Your task to perform on an android device: clear all cookies in the chrome app Image 0: 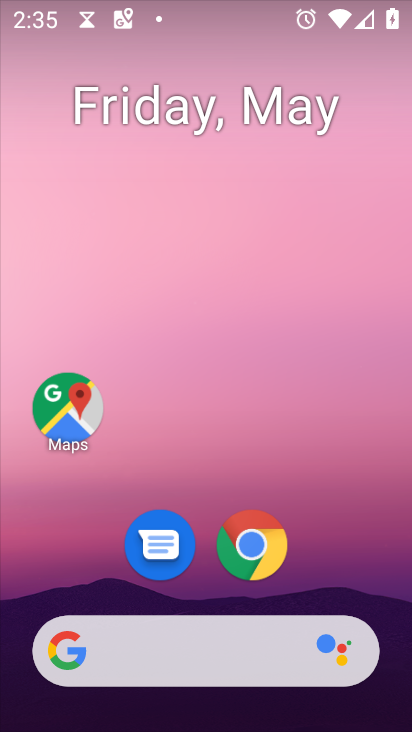
Step 0: click (262, 550)
Your task to perform on an android device: clear all cookies in the chrome app Image 1: 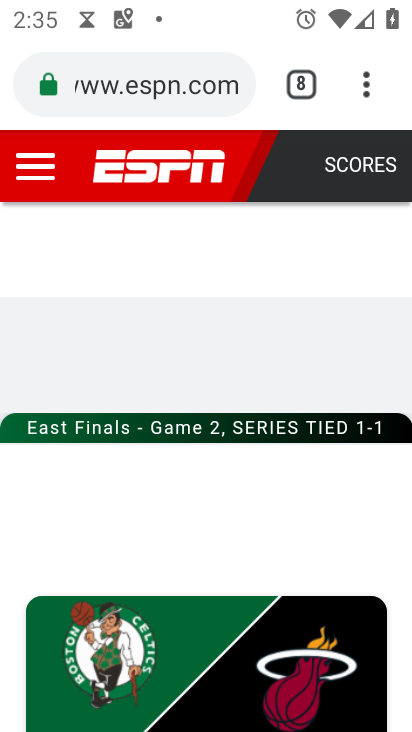
Step 1: click (371, 91)
Your task to perform on an android device: clear all cookies in the chrome app Image 2: 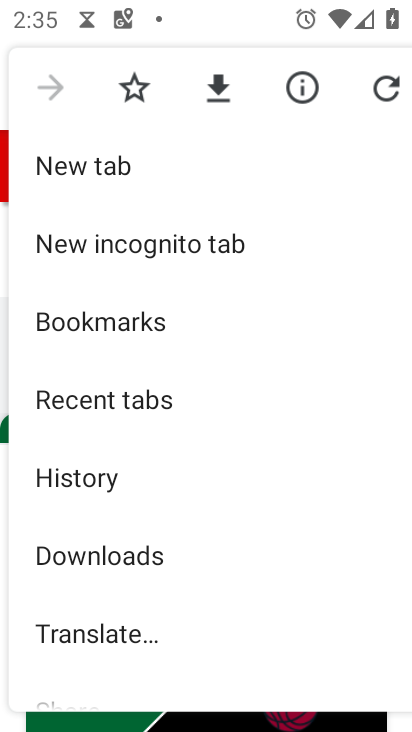
Step 2: click (107, 474)
Your task to perform on an android device: clear all cookies in the chrome app Image 3: 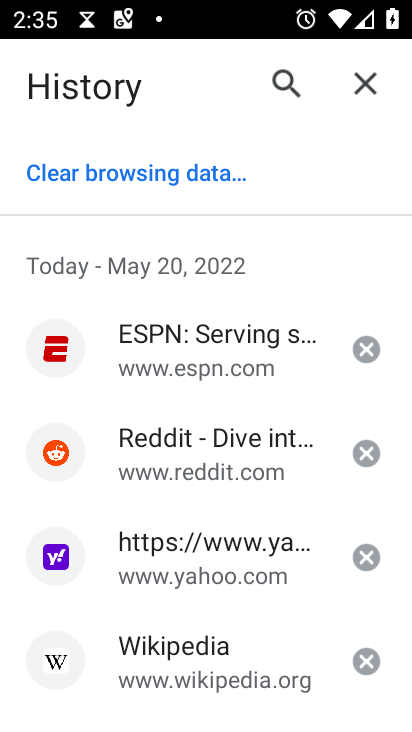
Step 3: click (160, 173)
Your task to perform on an android device: clear all cookies in the chrome app Image 4: 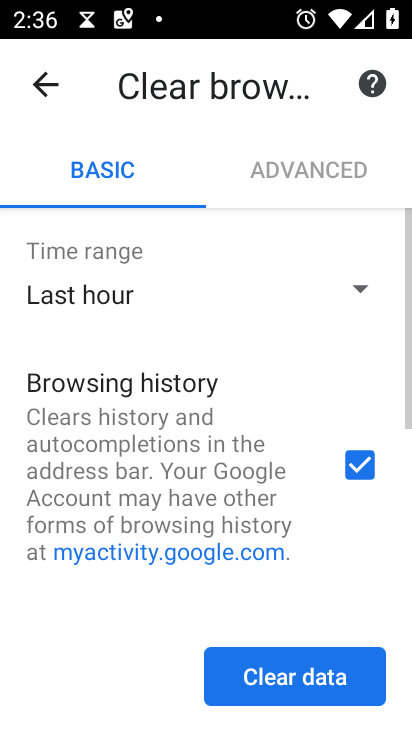
Step 4: click (362, 284)
Your task to perform on an android device: clear all cookies in the chrome app Image 5: 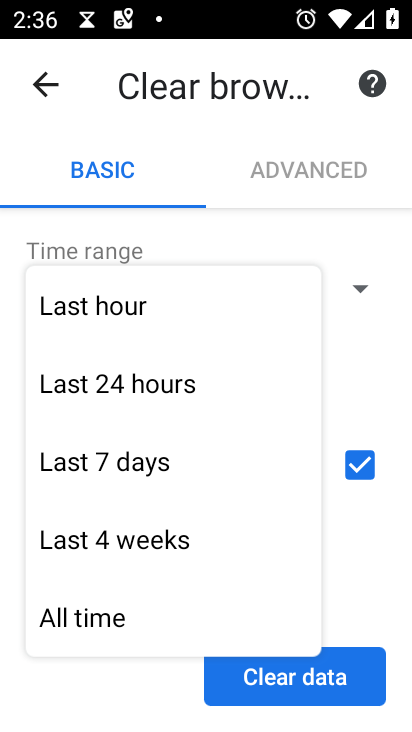
Step 5: click (101, 615)
Your task to perform on an android device: clear all cookies in the chrome app Image 6: 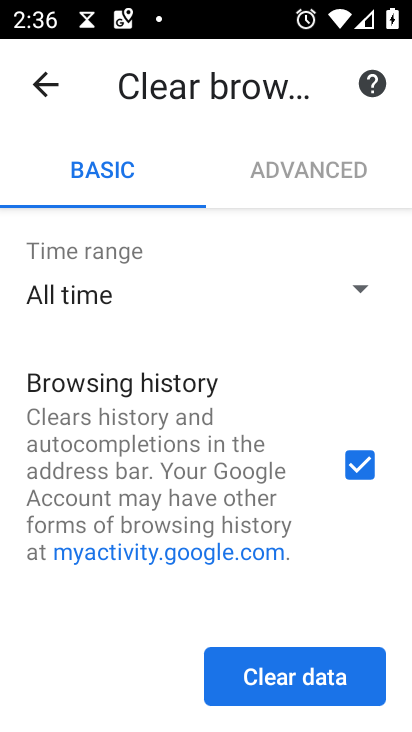
Step 6: click (285, 671)
Your task to perform on an android device: clear all cookies in the chrome app Image 7: 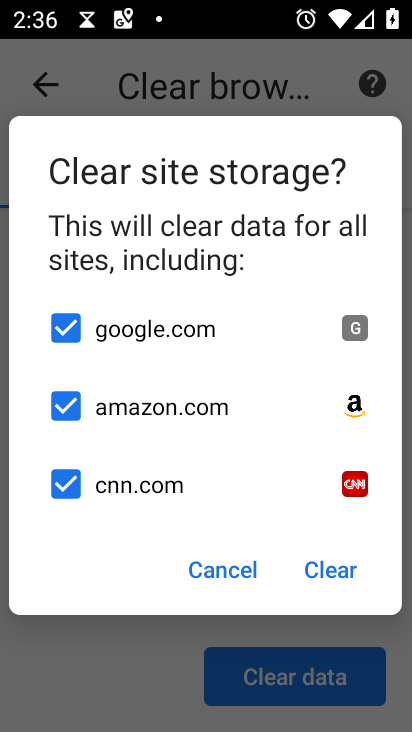
Step 7: click (336, 569)
Your task to perform on an android device: clear all cookies in the chrome app Image 8: 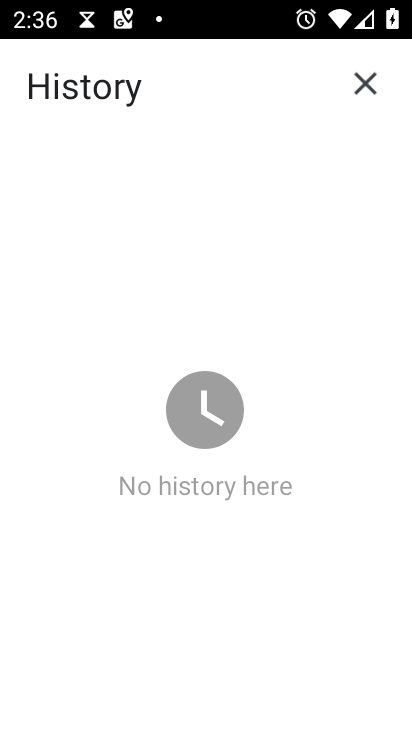
Step 8: task complete